Your task to perform on an android device: change text size in settings app Image 0: 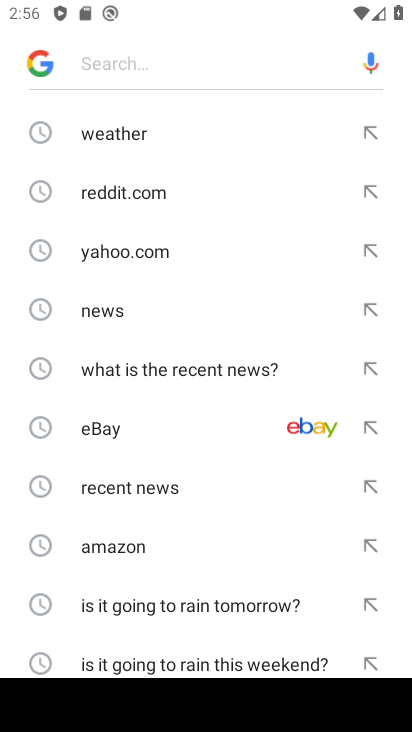
Step 0: press back button
Your task to perform on an android device: change text size in settings app Image 1: 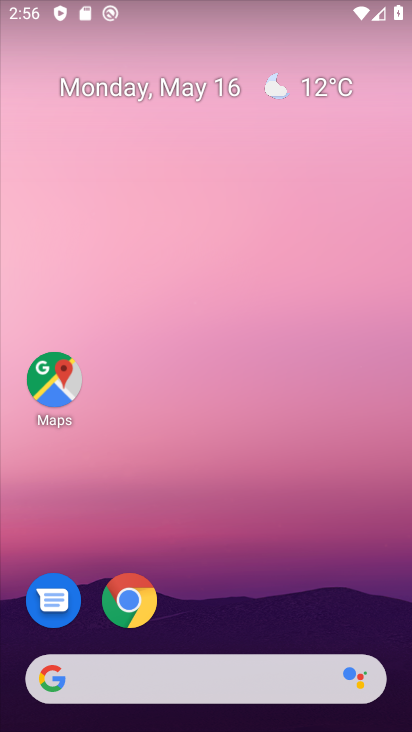
Step 1: drag from (210, 661) to (359, 1)
Your task to perform on an android device: change text size in settings app Image 2: 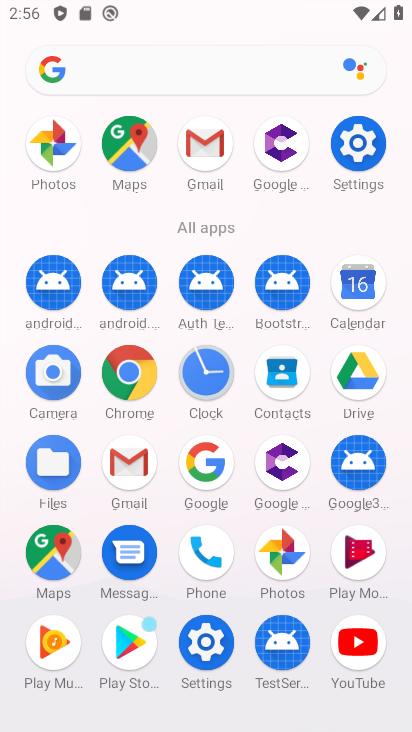
Step 2: click (206, 631)
Your task to perform on an android device: change text size in settings app Image 3: 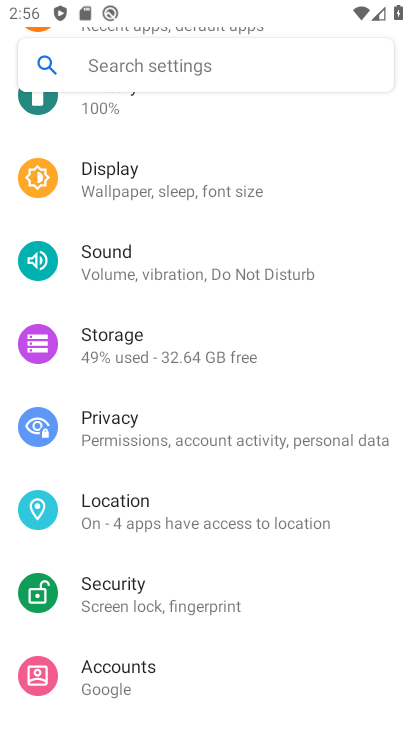
Step 3: click (140, 163)
Your task to perform on an android device: change text size in settings app Image 4: 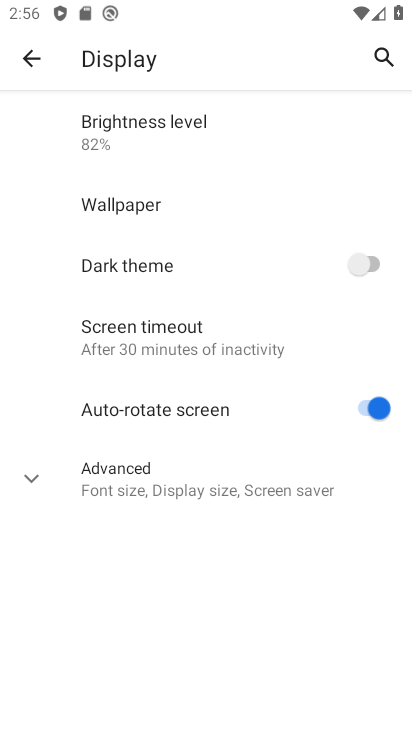
Step 4: click (88, 482)
Your task to perform on an android device: change text size in settings app Image 5: 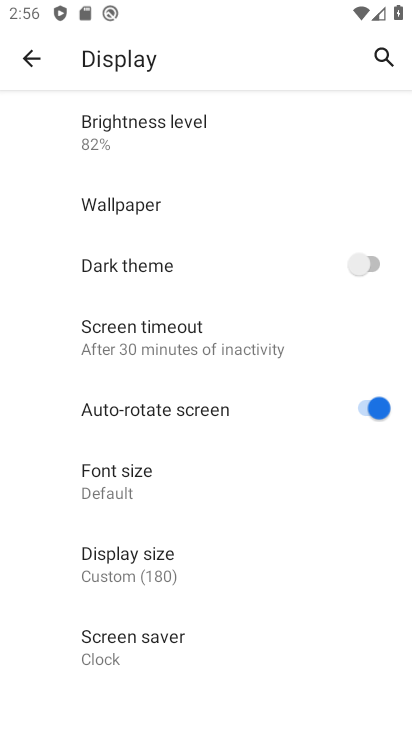
Step 5: click (104, 486)
Your task to perform on an android device: change text size in settings app Image 6: 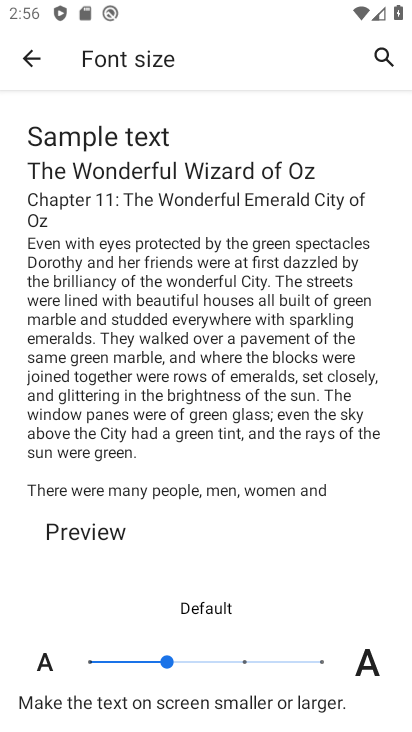
Step 6: click (241, 671)
Your task to perform on an android device: change text size in settings app Image 7: 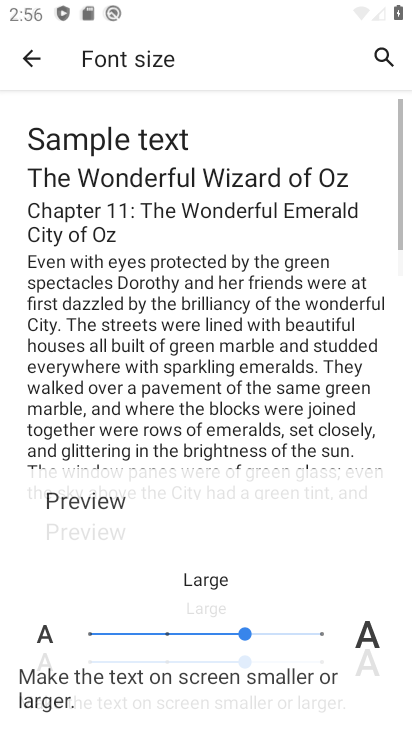
Step 7: task complete